Your task to perform on an android device: read, delete, or share a saved page in the chrome app Image 0: 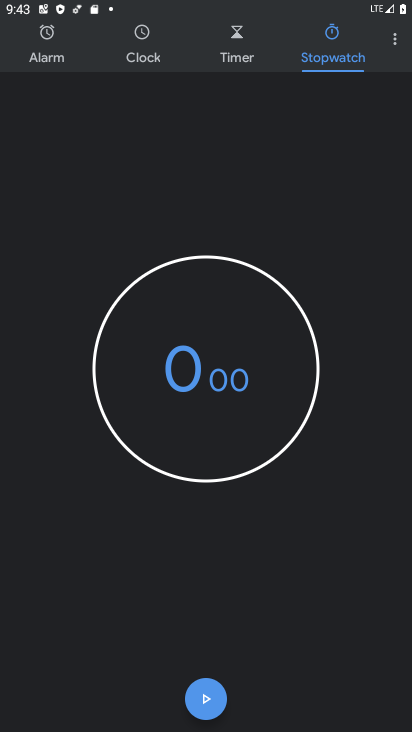
Step 0: drag from (123, 309) to (225, 96)
Your task to perform on an android device: read, delete, or share a saved page in the chrome app Image 1: 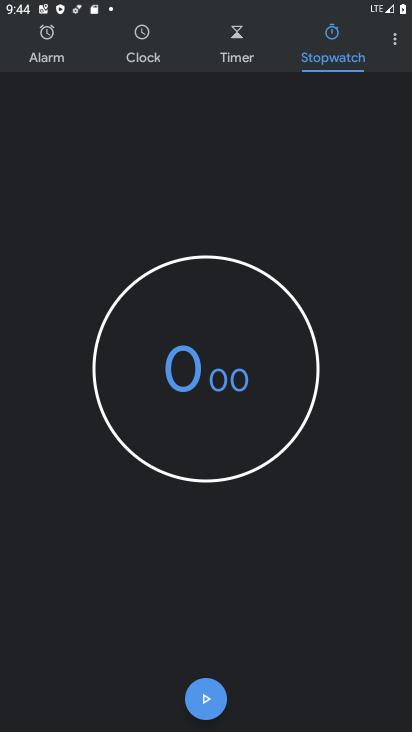
Step 1: press home button
Your task to perform on an android device: read, delete, or share a saved page in the chrome app Image 2: 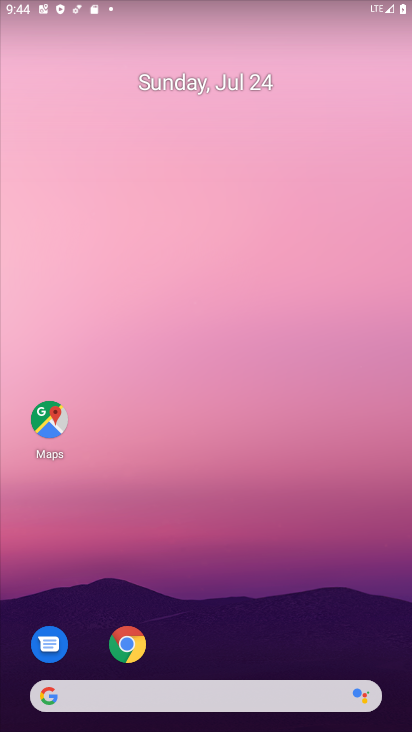
Step 2: click (141, 642)
Your task to perform on an android device: read, delete, or share a saved page in the chrome app Image 3: 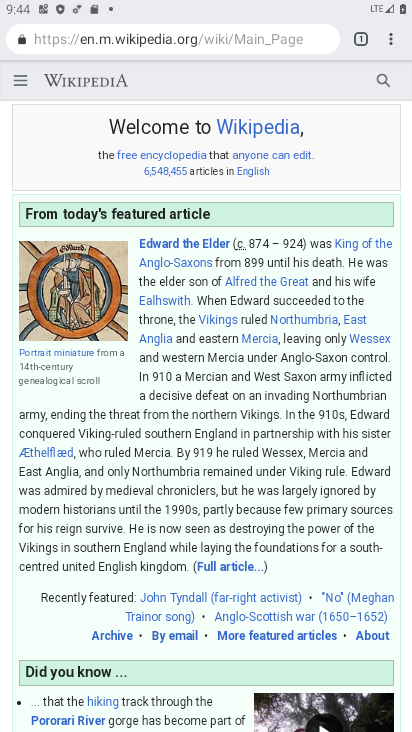
Step 3: click (354, 34)
Your task to perform on an android device: read, delete, or share a saved page in the chrome app Image 4: 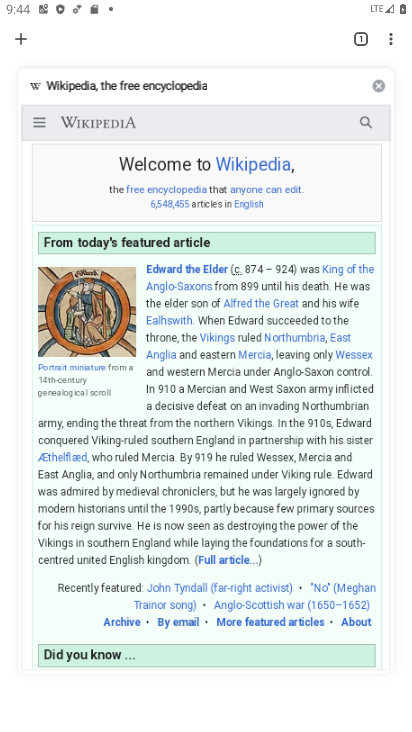
Step 4: click (25, 44)
Your task to perform on an android device: read, delete, or share a saved page in the chrome app Image 5: 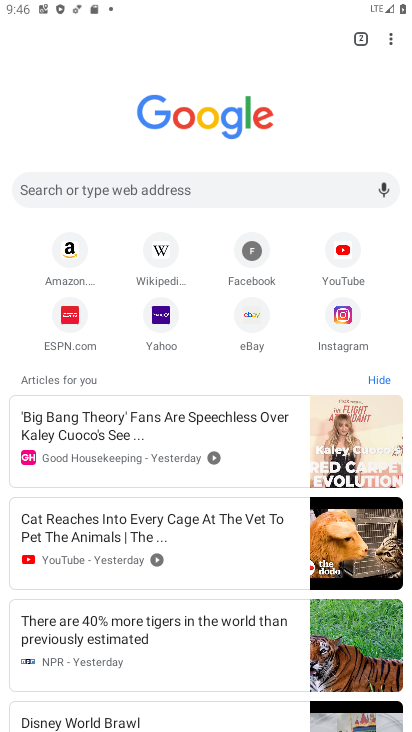
Step 5: click (342, 315)
Your task to perform on an android device: read, delete, or share a saved page in the chrome app Image 6: 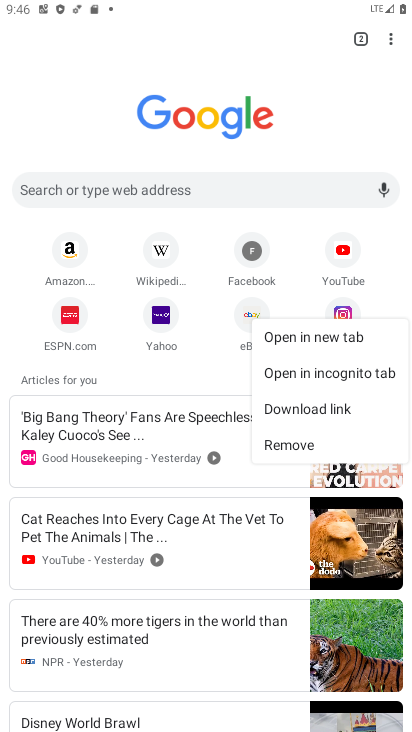
Step 6: click (323, 452)
Your task to perform on an android device: read, delete, or share a saved page in the chrome app Image 7: 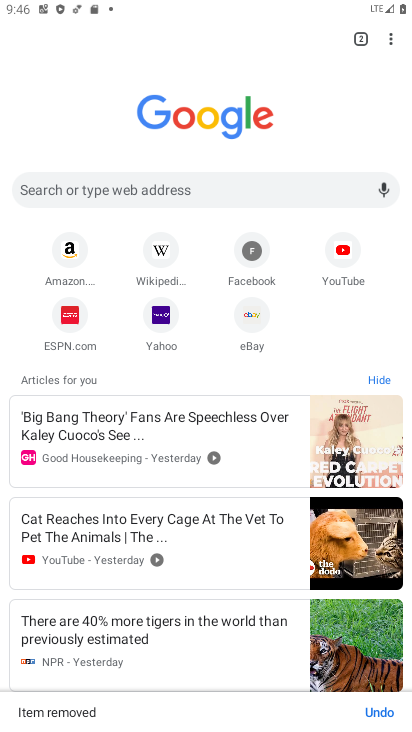
Step 7: task complete